Your task to perform on an android device: Set the phone to "Do not disturb". Image 0: 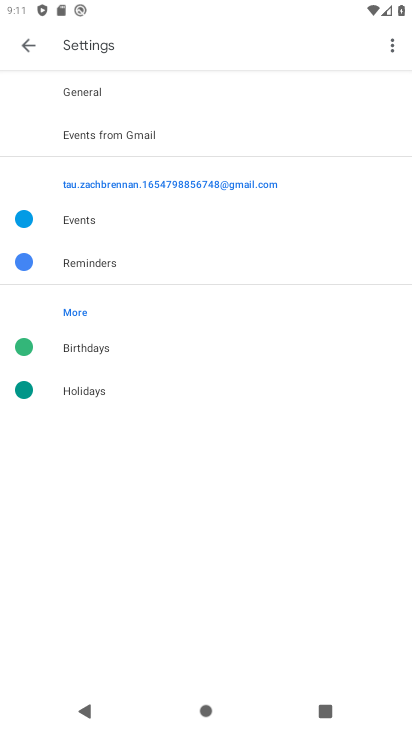
Step 0: drag from (213, 43) to (165, 494)
Your task to perform on an android device: Set the phone to "Do not disturb". Image 1: 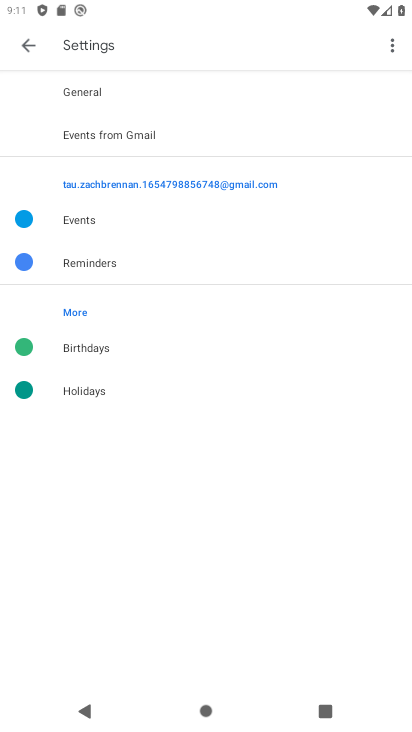
Step 1: drag from (106, 10) to (192, 553)
Your task to perform on an android device: Set the phone to "Do not disturb". Image 2: 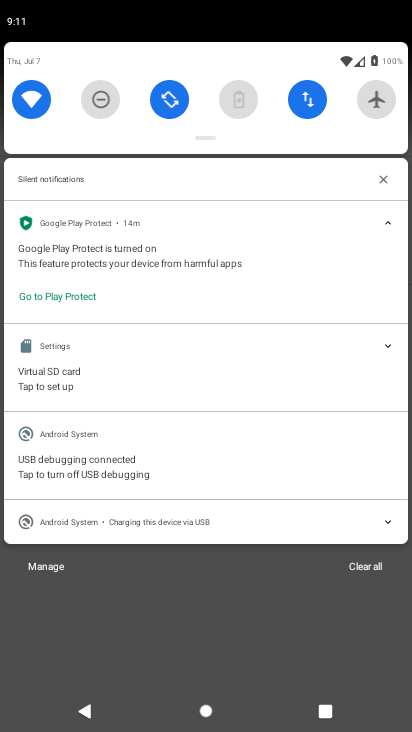
Step 2: click (100, 103)
Your task to perform on an android device: Set the phone to "Do not disturb". Image 3: 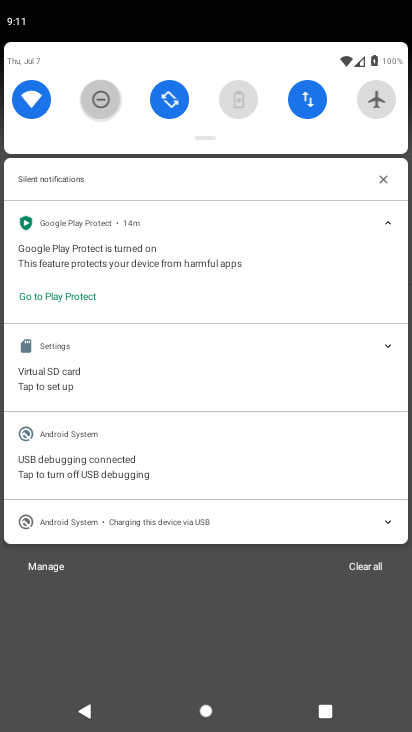
Step 3: task complete